Your task to perform on an android device: install app "Indeed Job Search" Image 0: 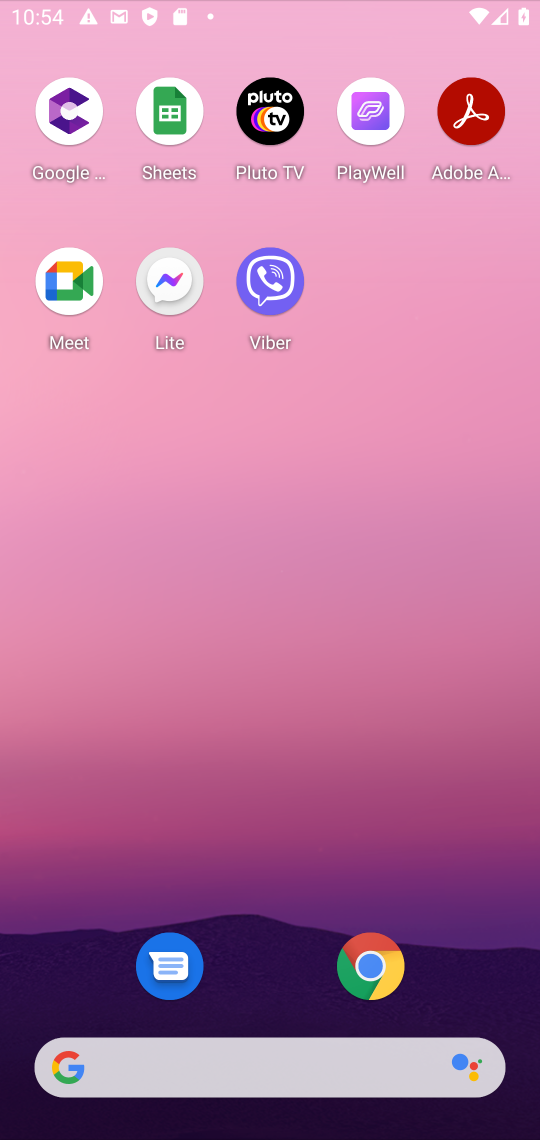
Step 0: press home button
Your task to perform on an android device: install app "Indeed Job Search" Image 1: 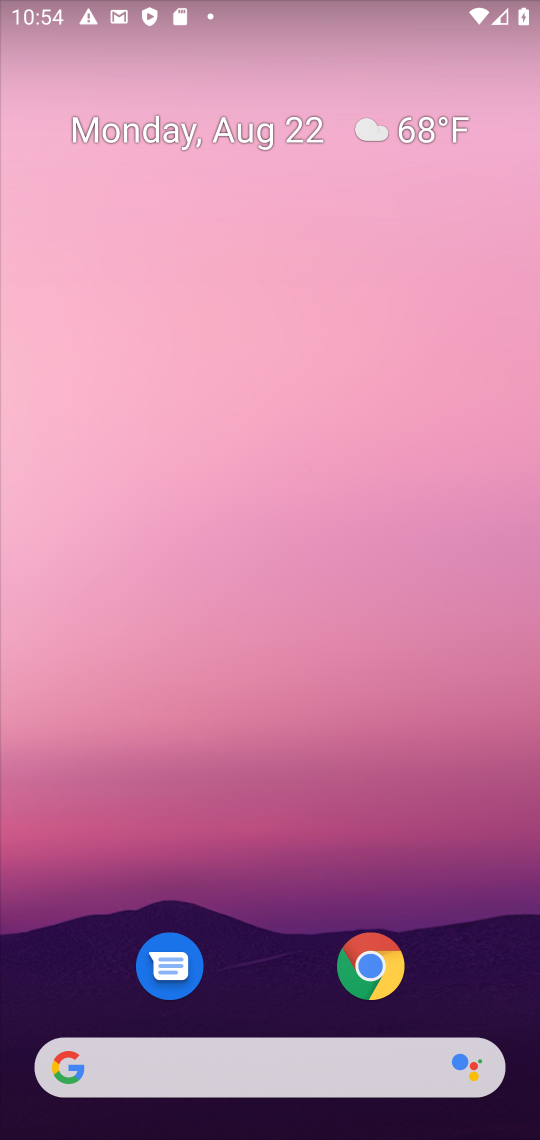
Step 1: drag from (440, 808) to (423, 100)
Your task to perform on an android device: install app "Indeed Job Search" Image 2: 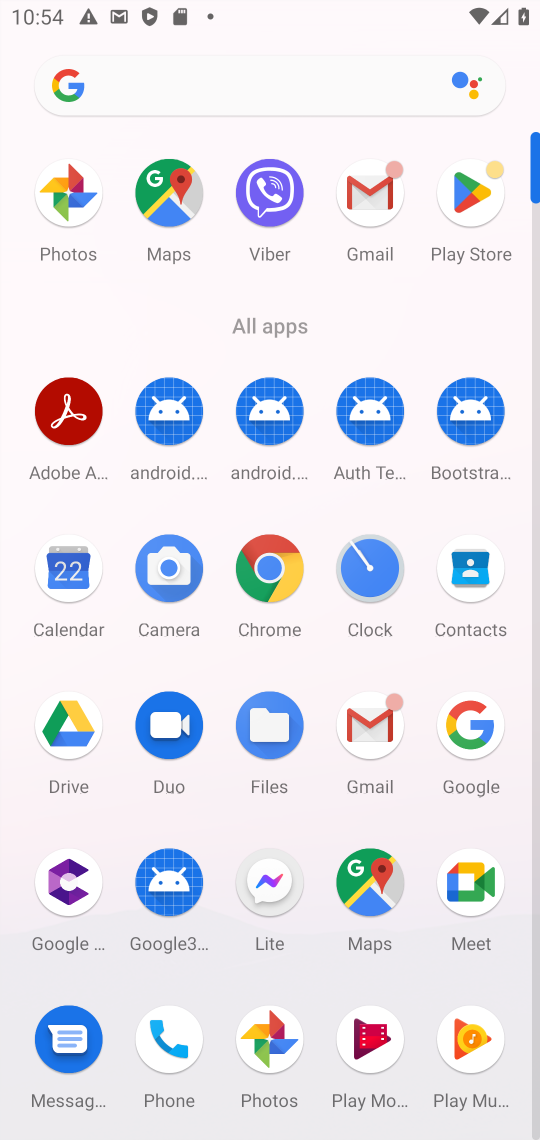
Step 2: click (461, 190)
Your task to perform on an android device: install app "Indeed Job Search" Image 3: 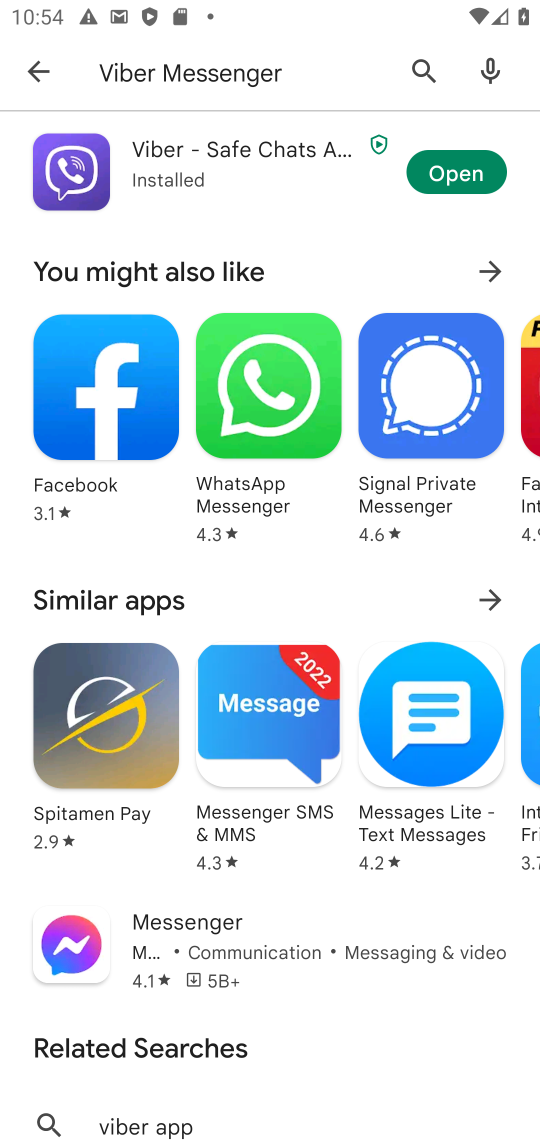
Step 3: press back button
Your task to perform on an android device: install app "Indeed Job Search" Image 4: 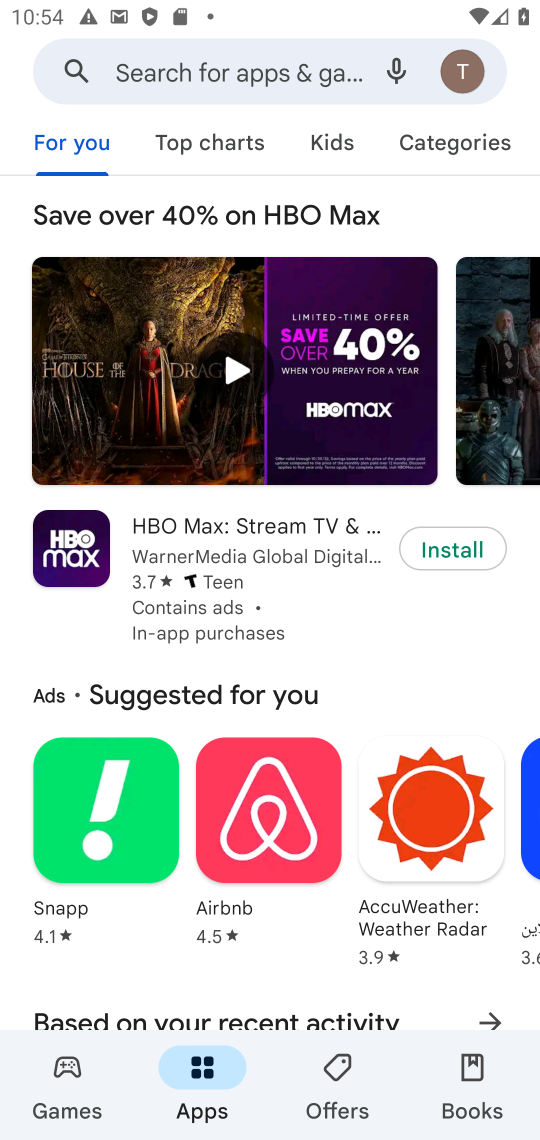
Step 4: click (236, 70)
Your task to perform on an android device: install app "Indeed Job Search" Image 5: 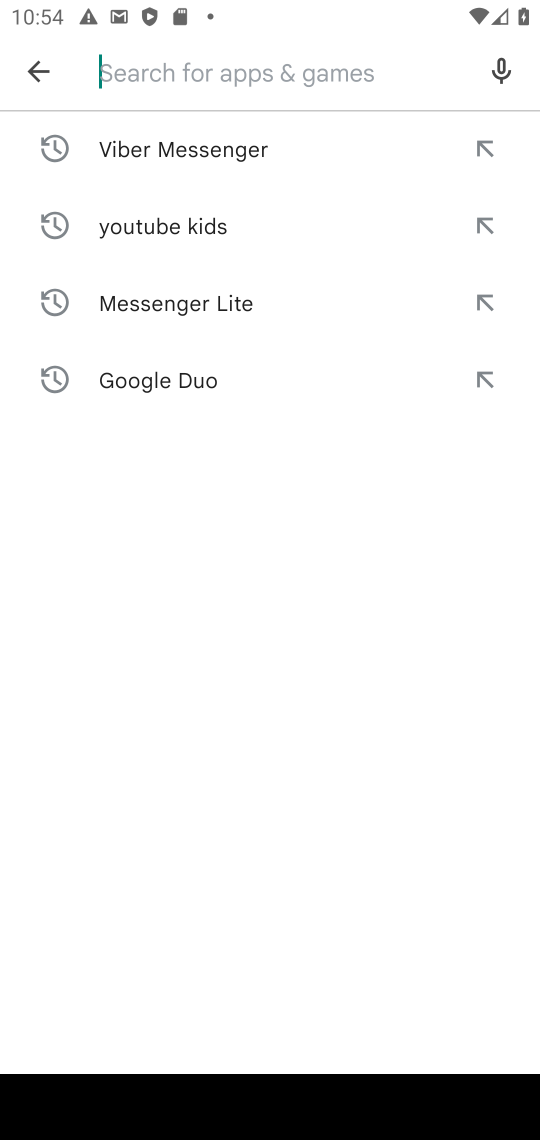
Step 5: type "Indeed Job Search"
Your task to perform on an android device: install app "Indeed Job Search" Image 6: 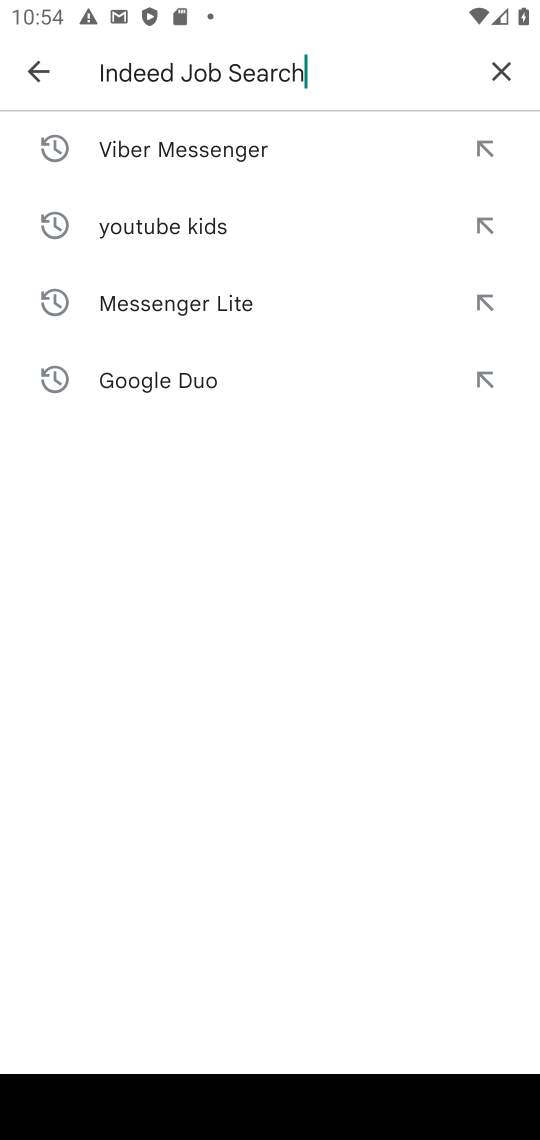
Step 6: press enter
Your task to perform on an android device: install app "Indeed Job Search" Image 7: 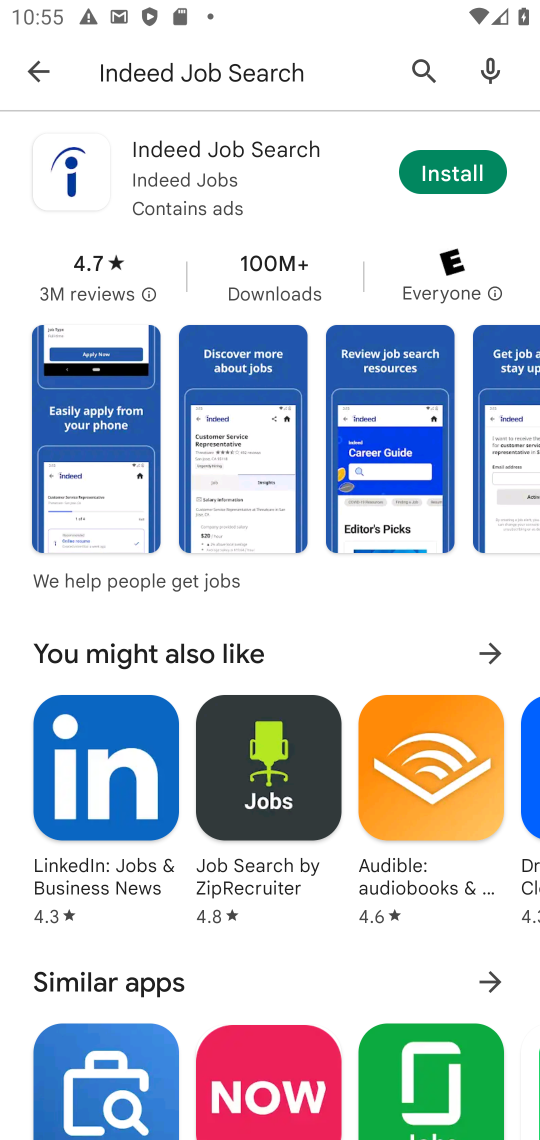
Step 7: click (475, 175)
Your task to perform on an android device: install app "Indeed Job Search" Image 8: 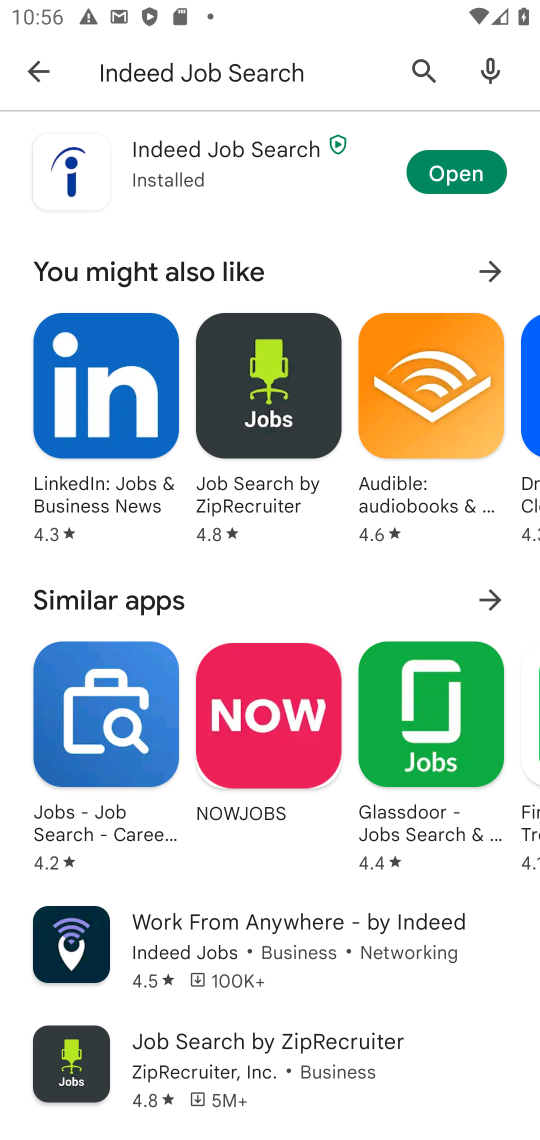
Step 8: task complete